Your task to perform on an android device: Open Google Maps Image 0: 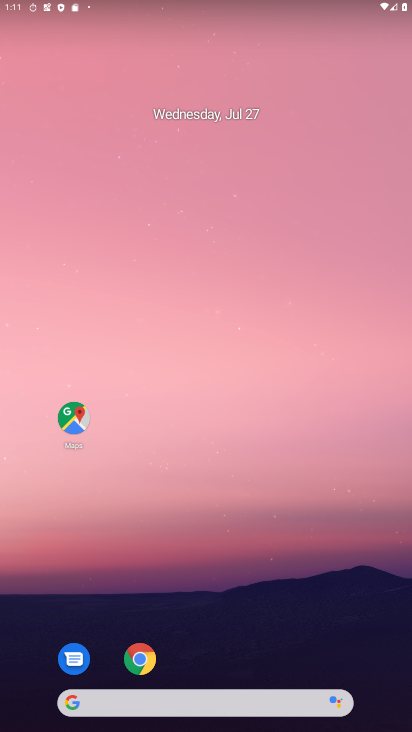
Step 0: press home button
Your task to perform on an android device: Open Google Maps Image 1: 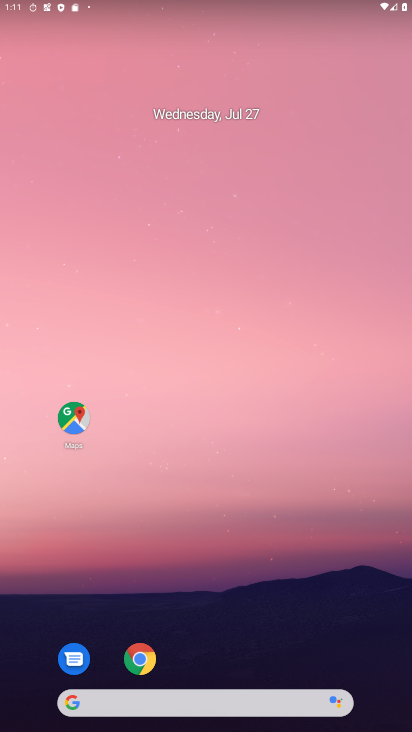
Step 1: click (66, 414)
Your task to perform on an android device: Open Google Maps Image 2: 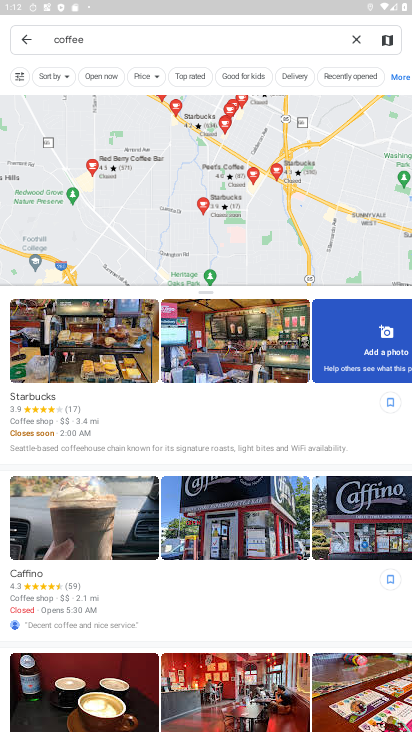
Step 2: click (28, 36)
Your task to perform on an android device: Open Google Maps Image 3: 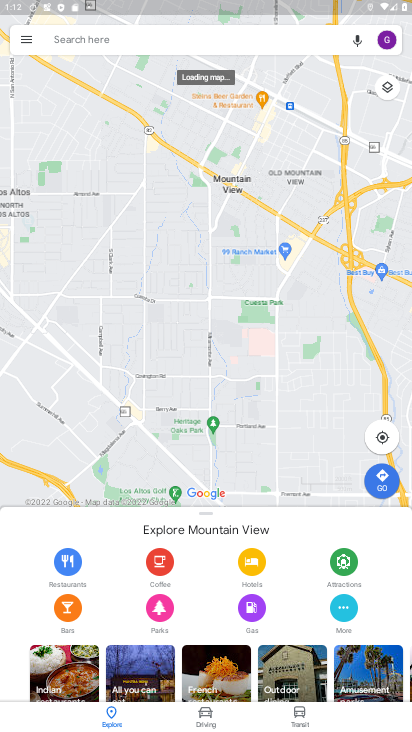
Step 3: task complete